Your task to perform on an android device: turn off airplane mode Image 0: 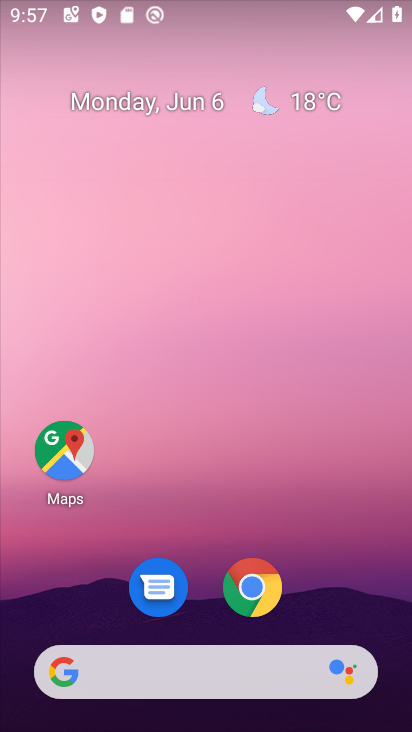
Step 0: drag from (302, 531) to (216, 20)
Your task to perform on an android device: turn off airplane mode Image 1: 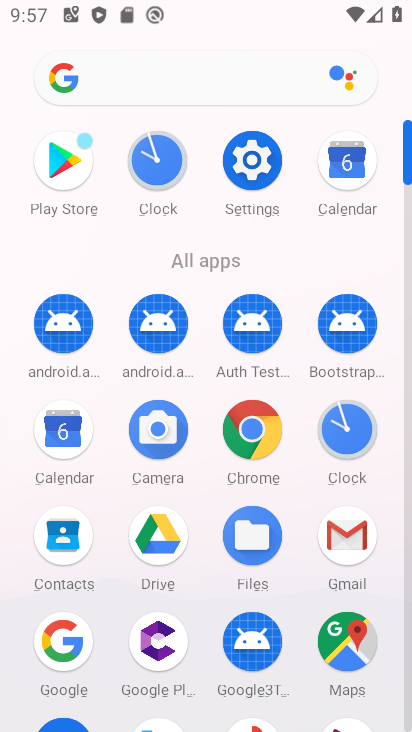
Step 1: click (249, 157)
Your task to perform on an android device: turn off airplane mode Image 2: 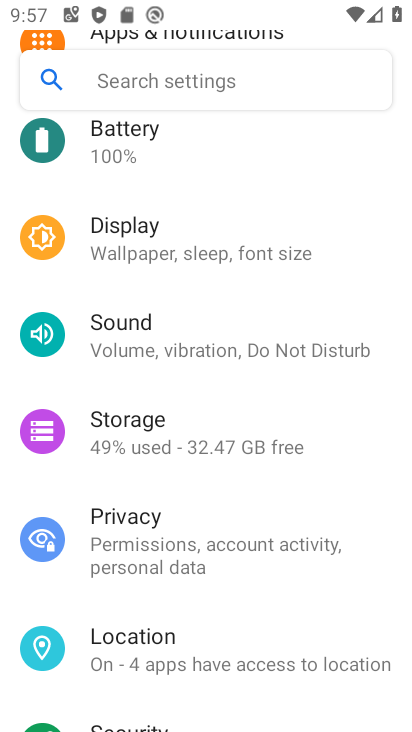
Step 2: drag from (217, 197) to (246, 634)
Your task to perform on an android device: turn off airplane mode Image 3: 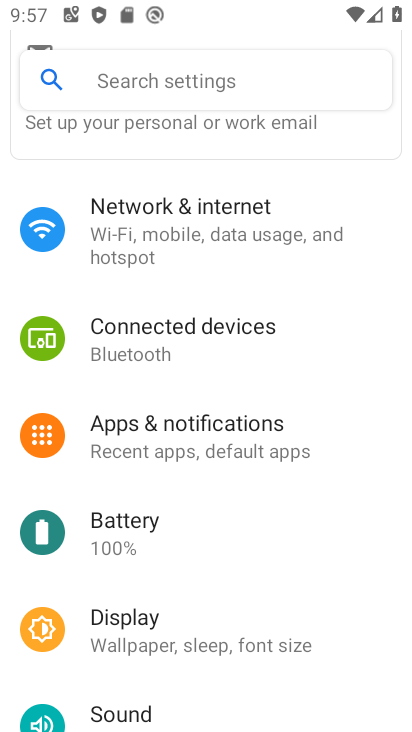
Step 3: click (216, 231)
Your task to perform on an android device: turn off airplane mode Image 4: 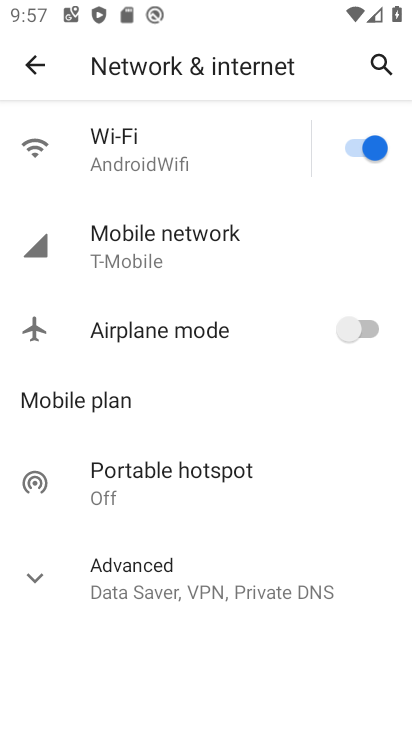
Step 4: task complete